Your task to perform on an android device: Open Google Maps and go to "Timeline" Image 0: 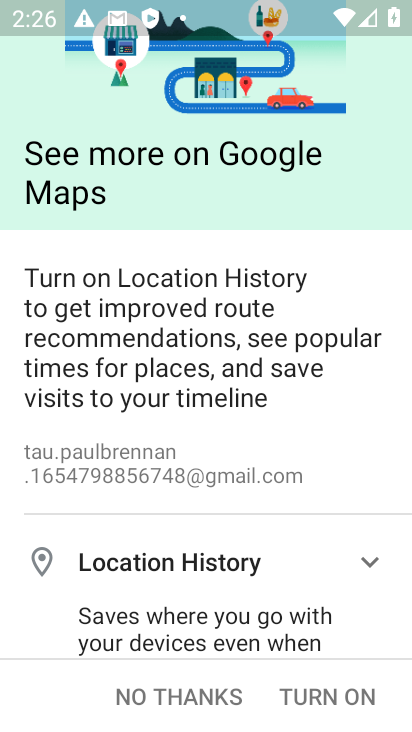
Step 0: press home button
Your task to perform on an android device: Open Google Maps and go to "Timeline" Image 1: 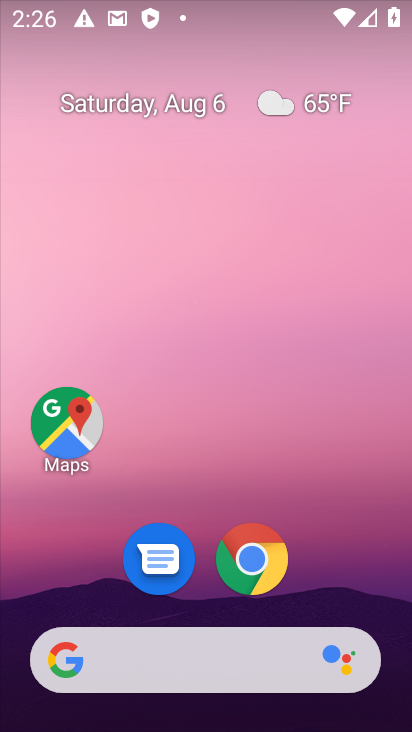
Step 1: click (61, 435)
Your task to perform on an android device: Open Google Maps and go to "Timeline" Image 2: 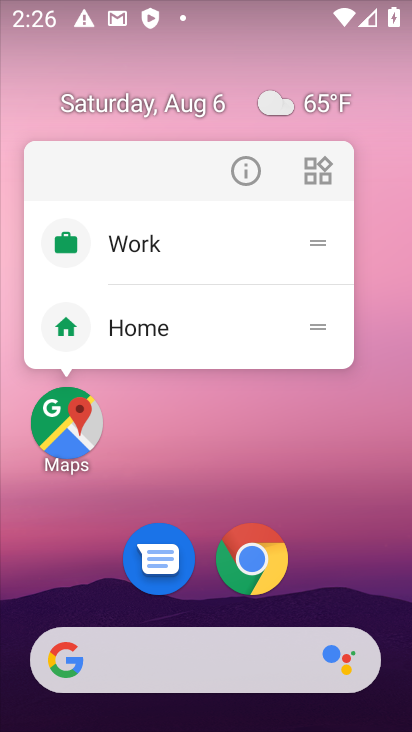
Step 2: click (68, 423)
Your task to perform on an android device: Open Google Maps and go to "Timeline" Image 3: 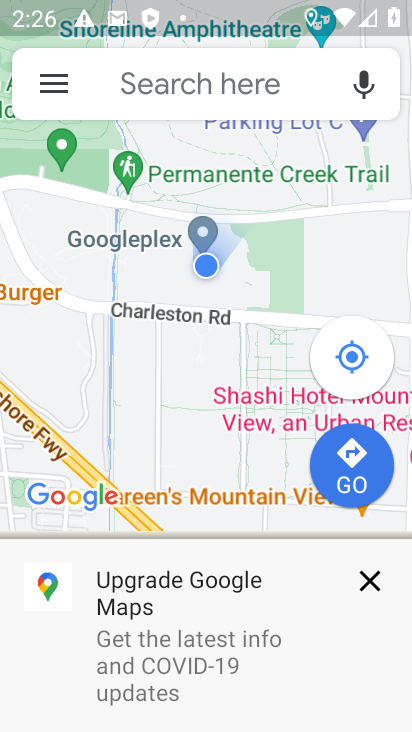
Step 3: click (46, 77)
Your task to perform on an android device: Open Google Maps and go to "Timeline" Image 4: 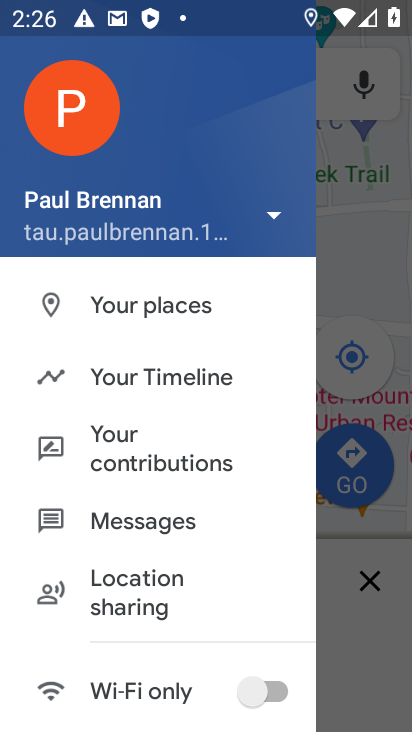
Step 4: click (191, 366)
Your task to perform on an android device: Open Google Maps and go to "Timeline" Image 5: 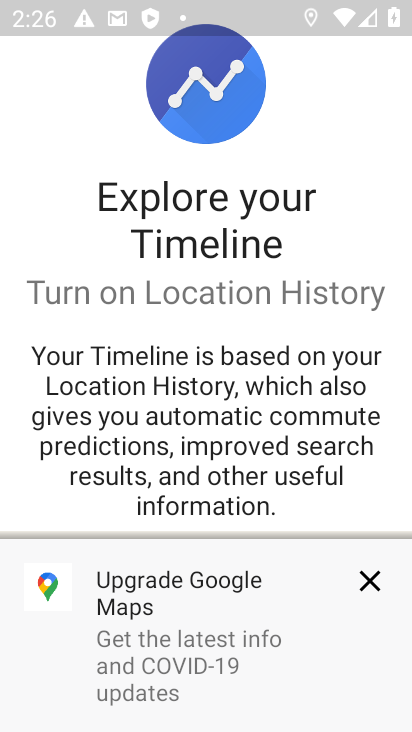
Step 5: drag from (255, 484) to (241, 270)
Your task to perform on an android device: Open Google Maps and go to "Timeline" Image 6: 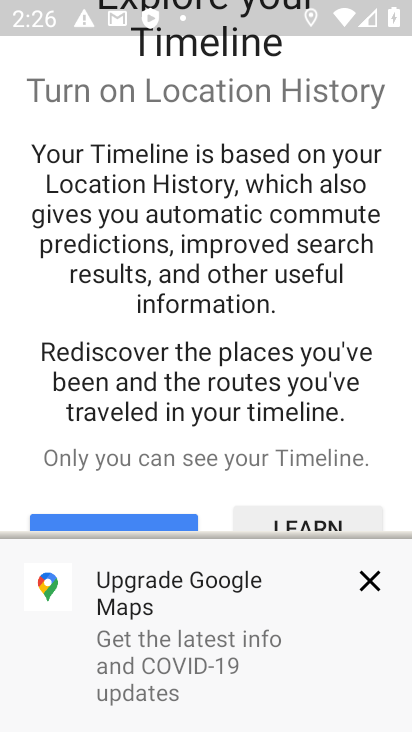
Step 6: click (364, 576)
Your task to perform on an android device: Open Google Maps and go to "Timeline" Image 7: 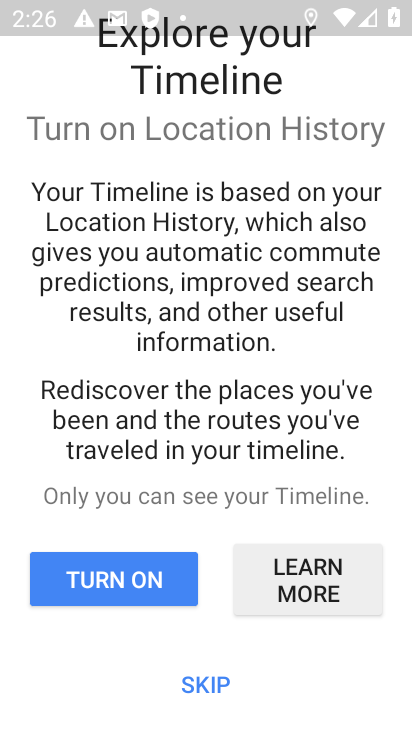
Step 7: click (190, 679)
Your task to perform on an android device: Open Google Maps and go to "Timeline" Image 8: 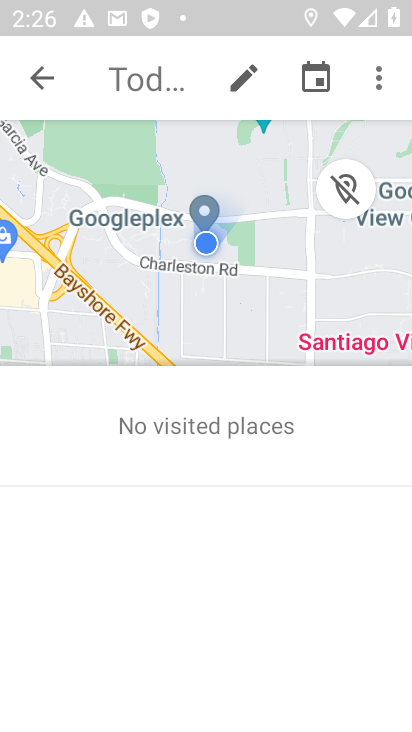
Step 8: task complete